Your task to perform on an android device: What's the weather today? Image 0: 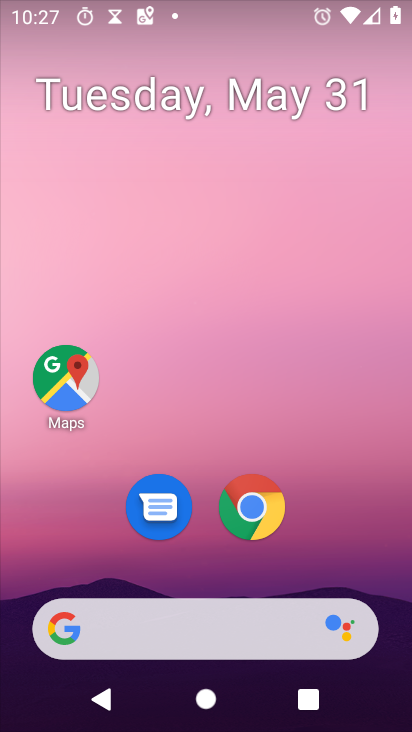
Step 0: click (118, 629)
Your task to perform on an android device: What's the weather today? Image 1: 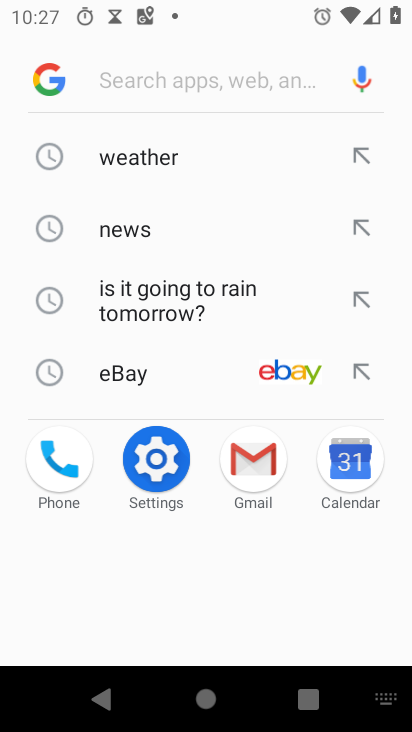
Step 1: click (110, 156)
Your task to perform on an android device: What's the weather today? Image 2: 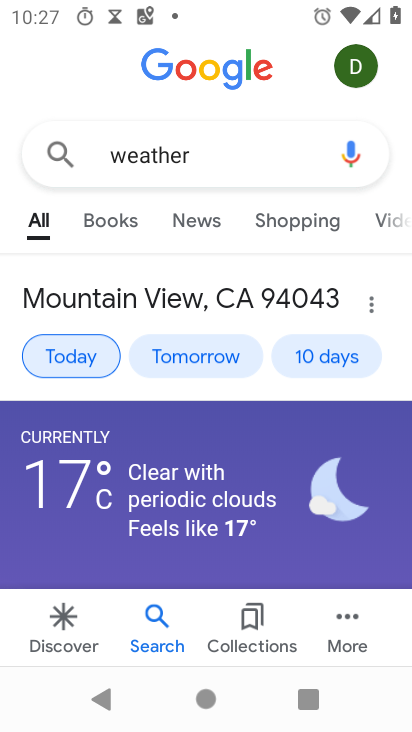
Step 2: click (85, 347)
Your task to perform on an android device: What's the weather today? Image 3: 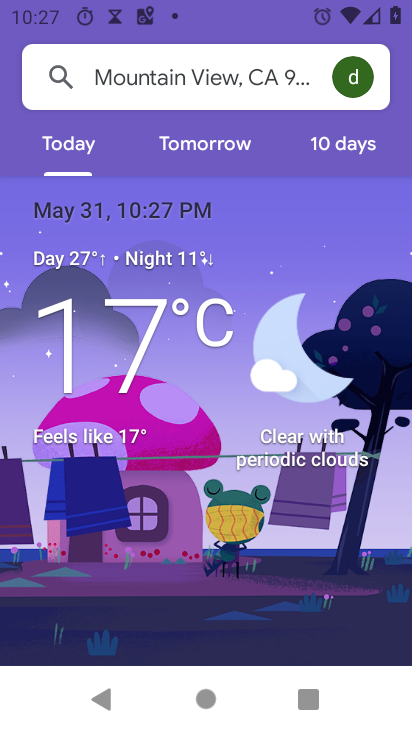
Step 3: task complete